Your task to perform on an android device: Open location settings Image 0: 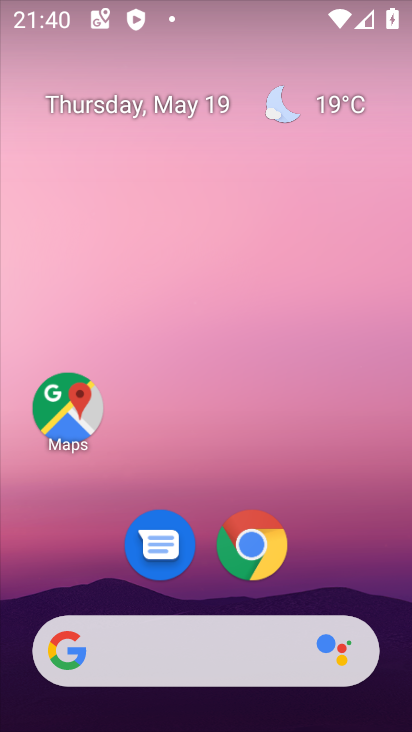
Step 0: drag from (374, 589) to (185, 56)
Your task to perform on an android device: Open location settings Image 1: 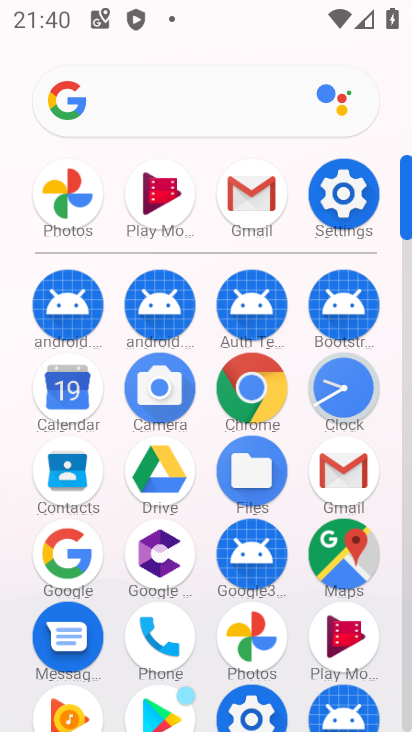
Step 1: click (326, 194)
Your task to perform on an android device: Open location settings Image 2: 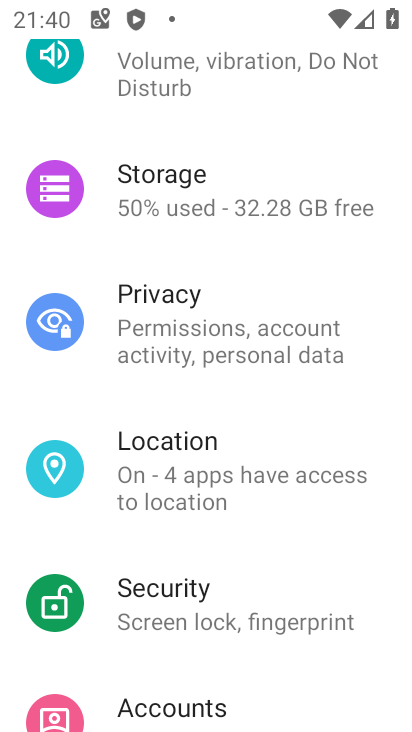
Step 2: click (197, 529)
Your task to perform on an android device: Open location settings Image 3: 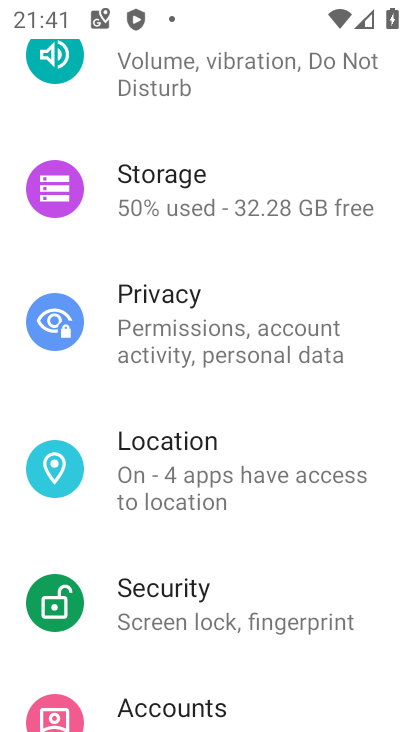
Step 3: click (210, 474)
Your task to perform on an android device: Open location settings Image 4: 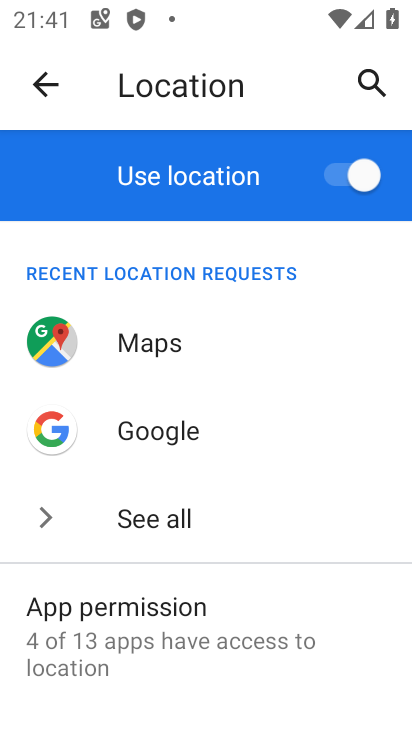
Step 4: task complete